Your task to perform on an android device: set the timer Image 0: 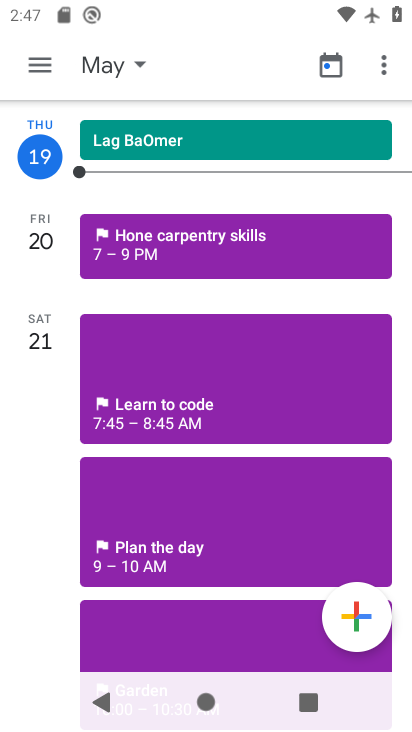
Step 0: press home button
Your task to perform on an android device: set the timer Image 1: 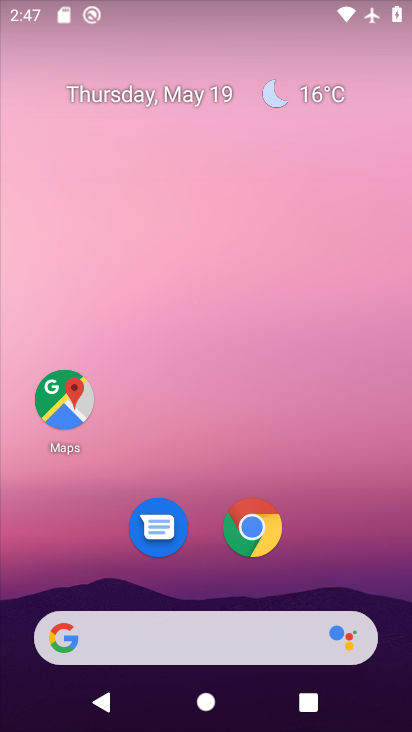
Step 1: drag from (342, 530) to (194, 23)
Your task to perform on an android device: set the timer Image 2: 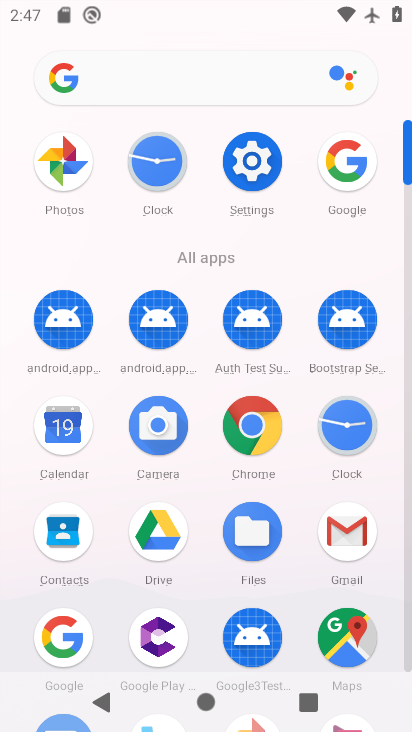
Step 2: click (169, 162)
Your task to perform on an android device: set the timer Image 3: 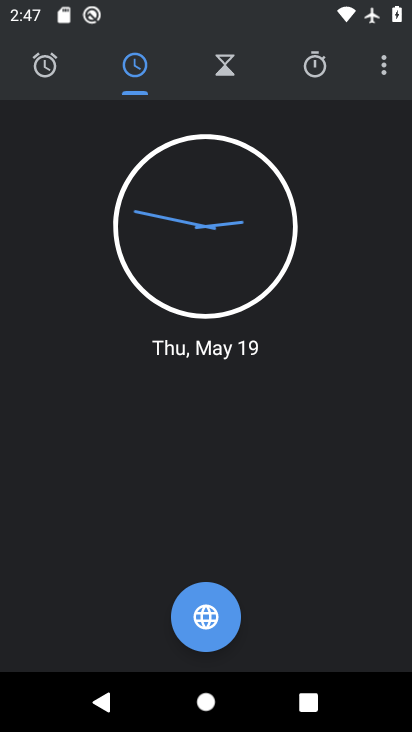
Step 3: click (382, 61)
Your task to perform on an android device: set the timer Image 4: 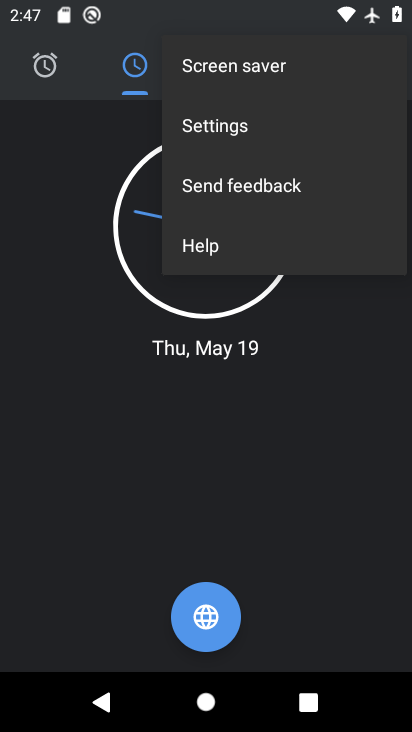
Step 4: click (120, 148)
Your task to perform on an android device: set the timer Image 5: 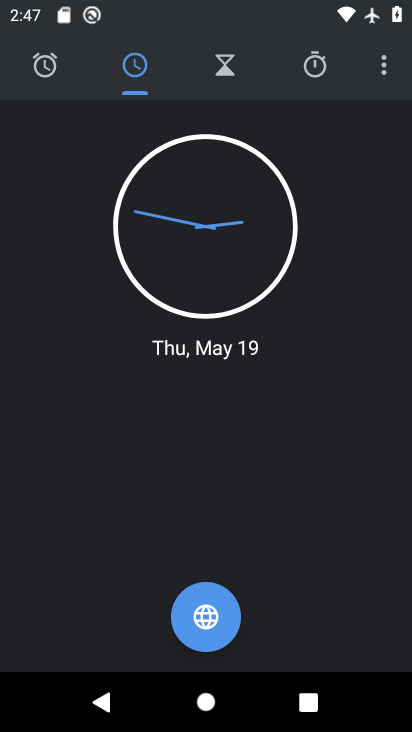
Step 5: click (212, 61)
Your task to perform on an android device: set the timer Image 6: 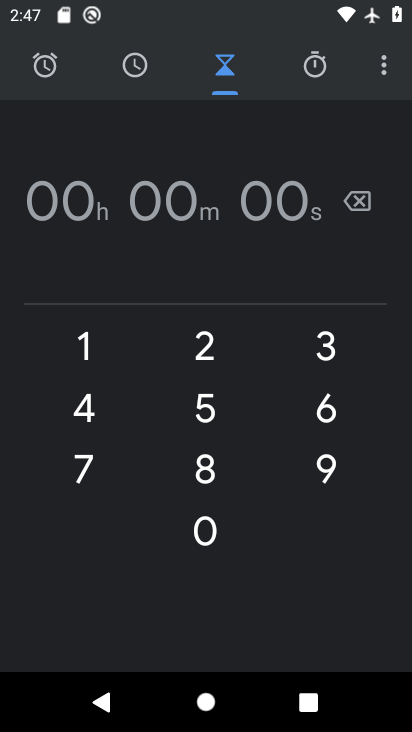
Step 6: click (98, 345)
Your task to perform on an android device: set the timer Image 7: 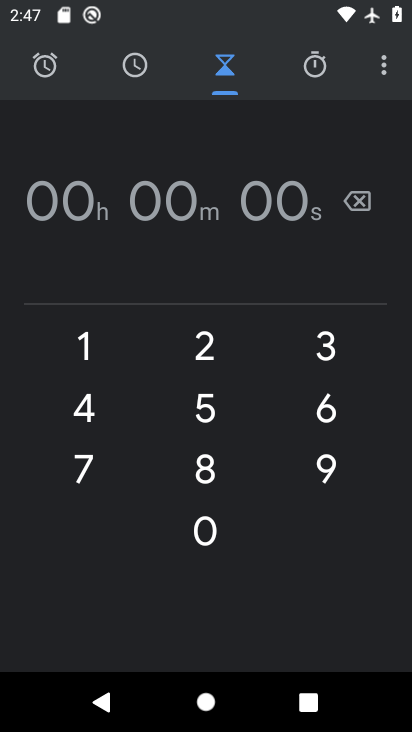
Step 7: click (98, 345)
Your task to perform on an android device: set the timer Image 8: 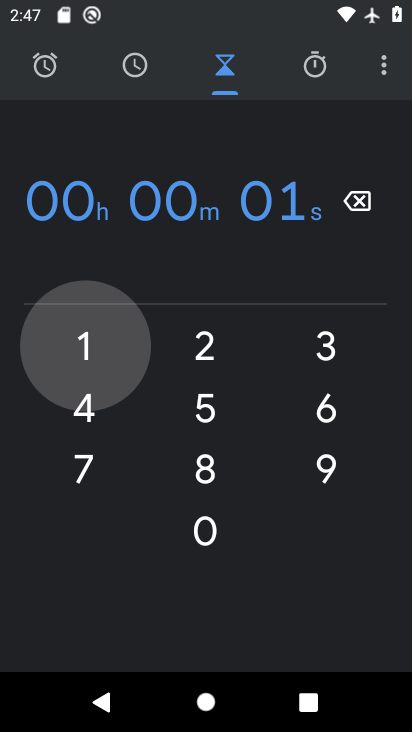
Step 8: click (99, 344)
Your task to perform on an android device: set the timer Image 9: 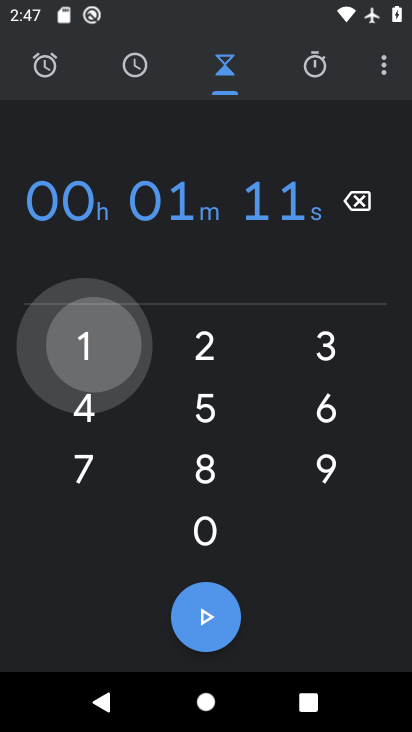
Step 9: click (99, 342)
Your task to perform on an android device: set the timer Image 10: 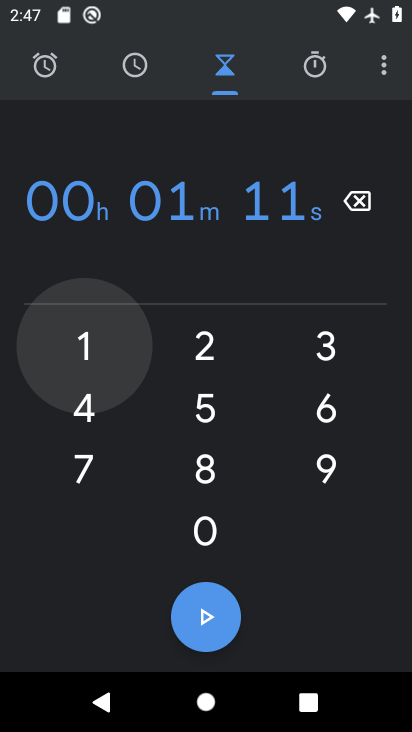
Step 10: click (99, 339)
Your task to perform on an android device: set the timer Image 11: 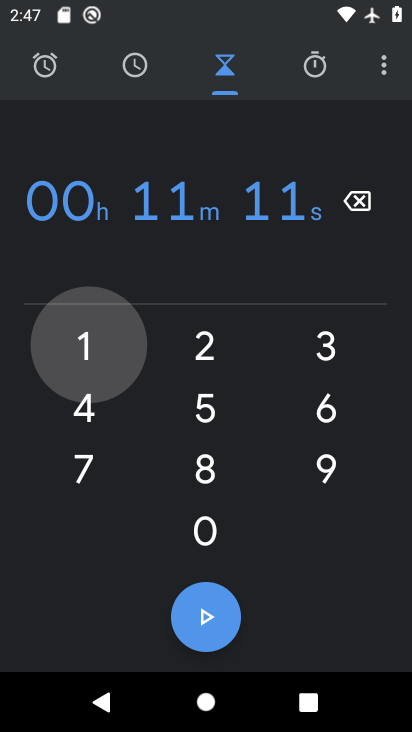
Step 11: click (99, 339)
Your task to perform on an android device: set the timer Image 12: 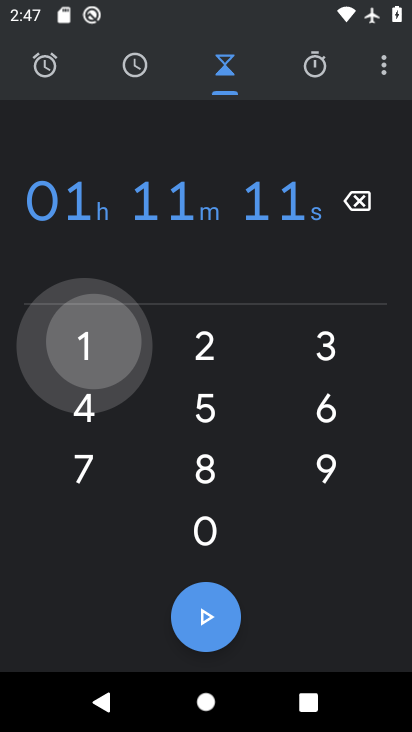
Step 12: click (99, 339)
Your task to perform on an android device: set the timer Image 13: 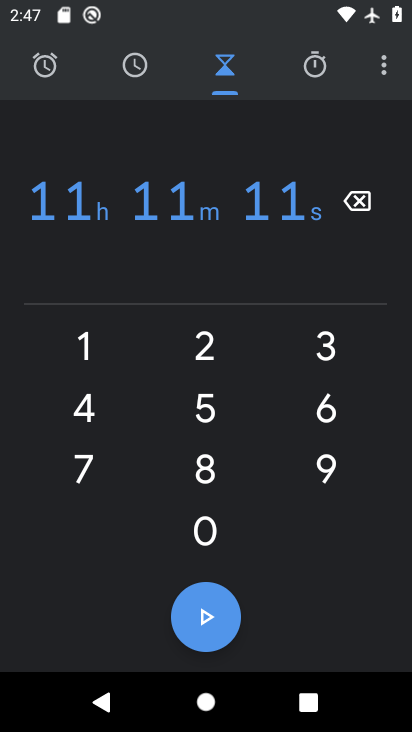
Step 13: click (219, 610)
Your task to perform on an android device: set the timer Image 14: 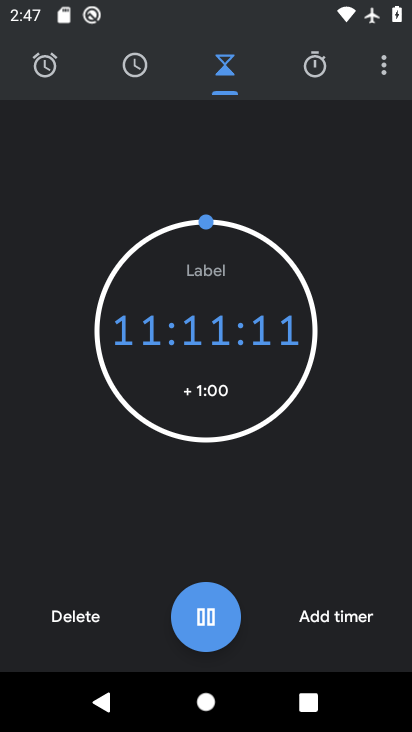
Step 14: task complete